Your task to perform on an android device: Search for 8K TVs on Best Buy. Image 0: 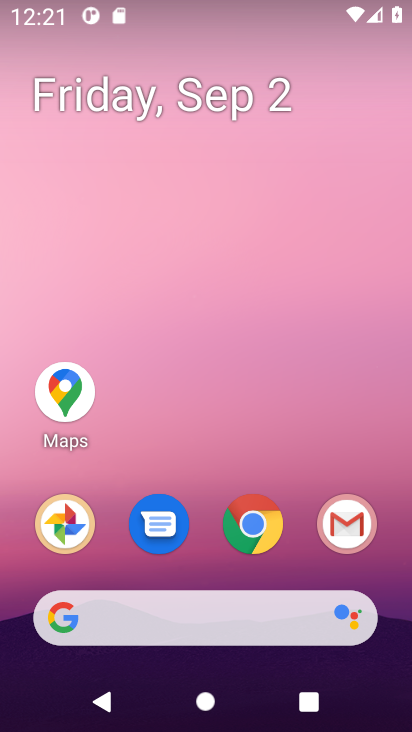
Step 0: click (273, 620)
Your task to perform on an android device: Search for 8K TVs on Best Buy. Image 1: 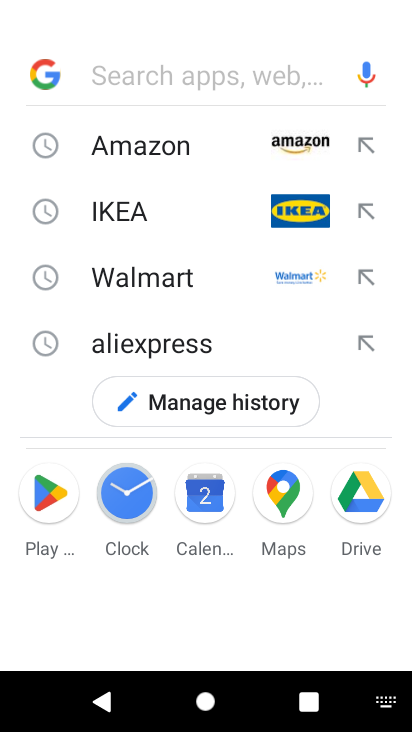
Step 1: press enter
Your task to perform on an android device: Search for 8K TVs on Best Buy. Image 2: 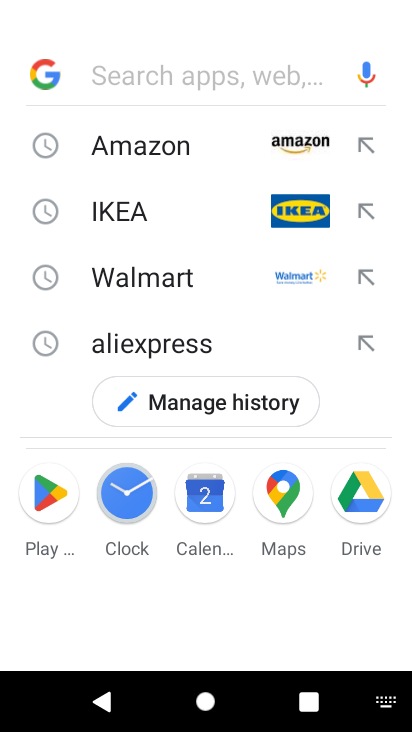
Step 2: type "best buy"
Your task to perform on an android device: Search for 8K TVs on Best Buy. Image 3: 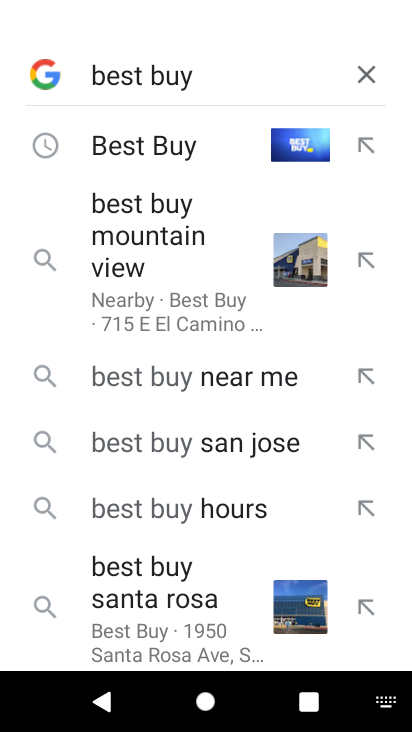
Step 3: click (191, 145)
Your task to perform on an android device: Search for 8K TVs on Best Buy. Image 4: 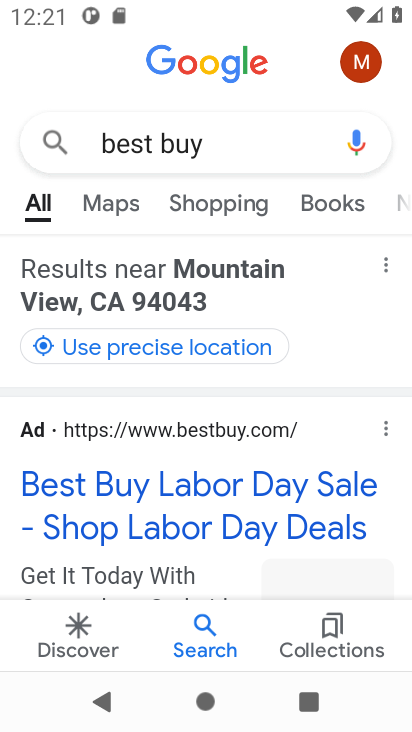
Step 4: click (238, 500)
Your task to perform on an android device: Search for 8K TVs on Best Buy. Image 5: 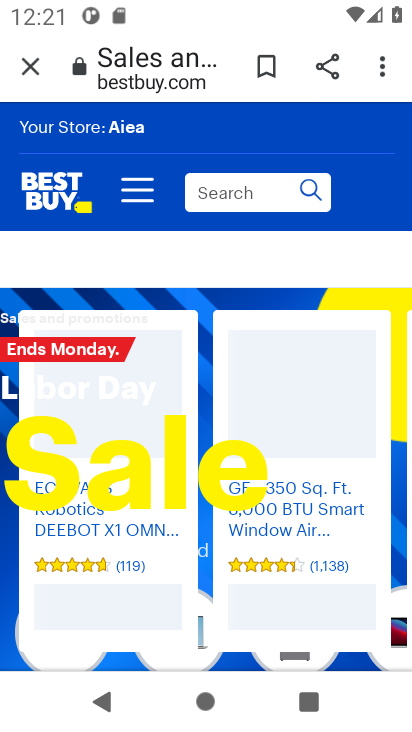
Step 5: click (243, 192)
Your task to perform on an android device: Search for 8K TVs on Best Buy. Image 6: 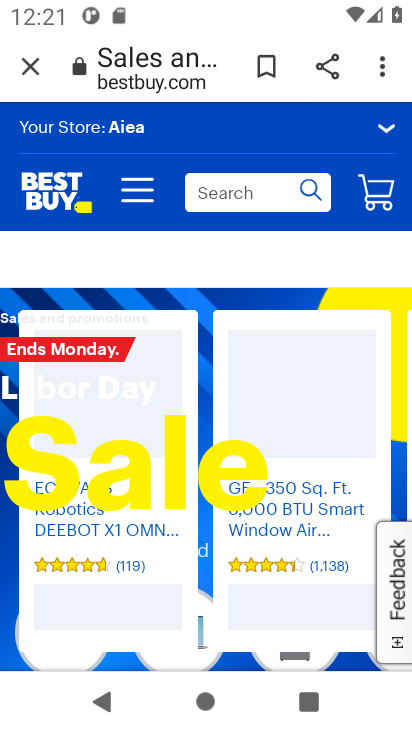
Step 6: click (227, 194)
Your task to perform on an android device: Search for 8K TVs on Best Buy. Image 7: 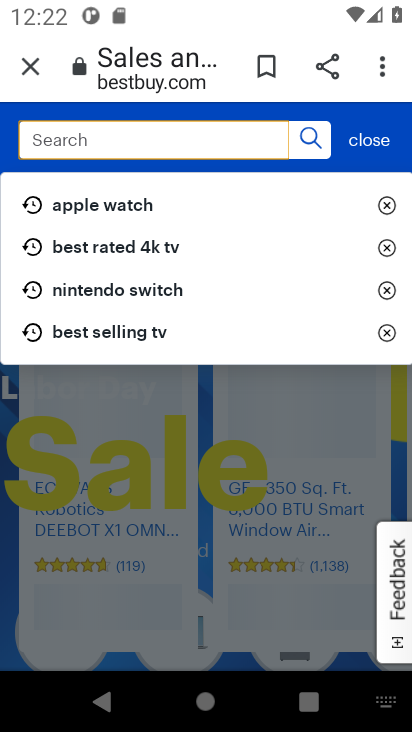
Step 7: press enter
Your task to perform on an android device: Search for 8K TVs on Best Buy. Image 8: 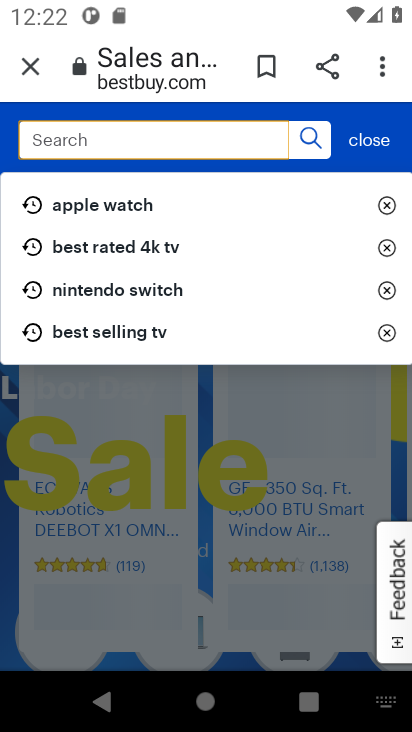
Step 8: type "8K TVs "
Your task to perform on an android device: Search for 8K TVs on Best Buy. Image 9: 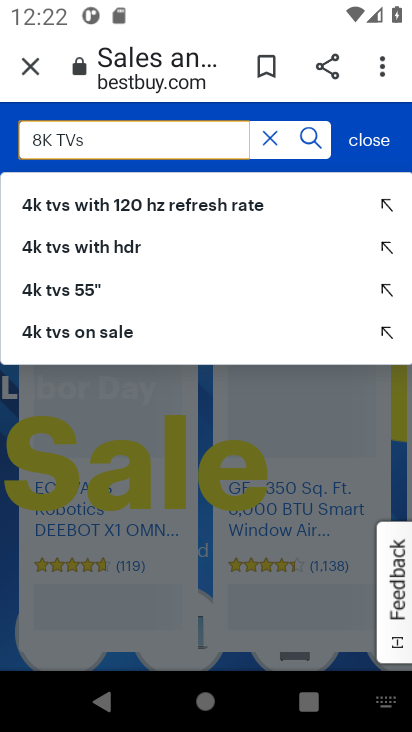
Step 9: click (312, 137)
Your task to perform on an android device: Search for 8K TVs on Best Buy. Image 10: 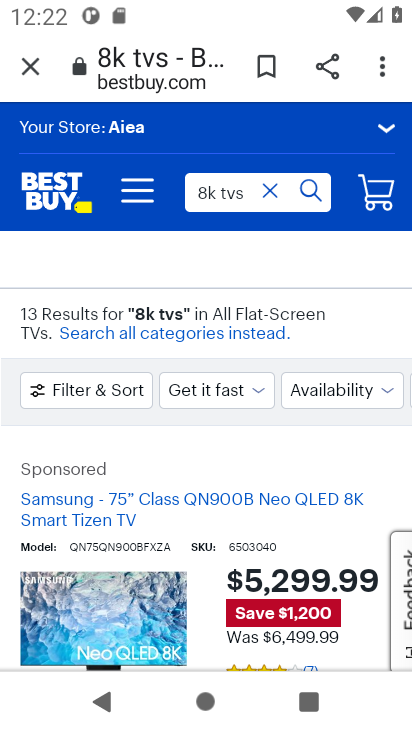
Step 10: task complete